Your task to perform on an android device: Show me the alarms in the clock app Image 0: 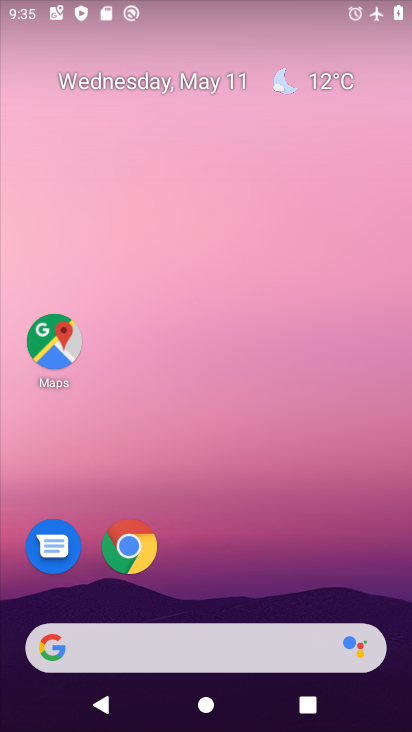
Step 0: drag from (398, 630) to (316, 79)
Your task to perform on an android device: Show me the alarms in the clock app Image 1: 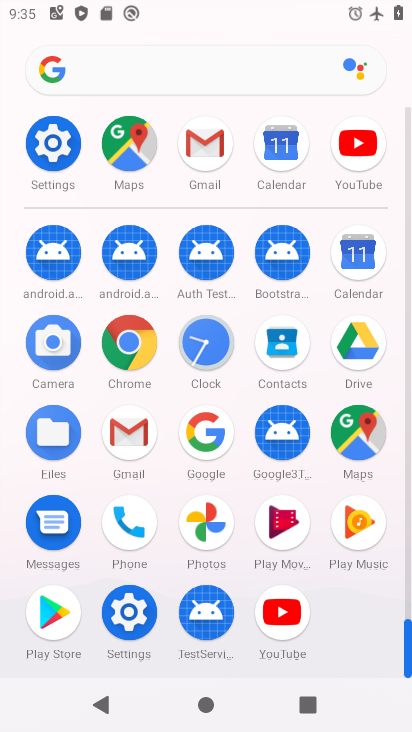
Step 1: click (206, 338)
Your task to perform on an android device: Show me the alarms in the clock app Image 2: 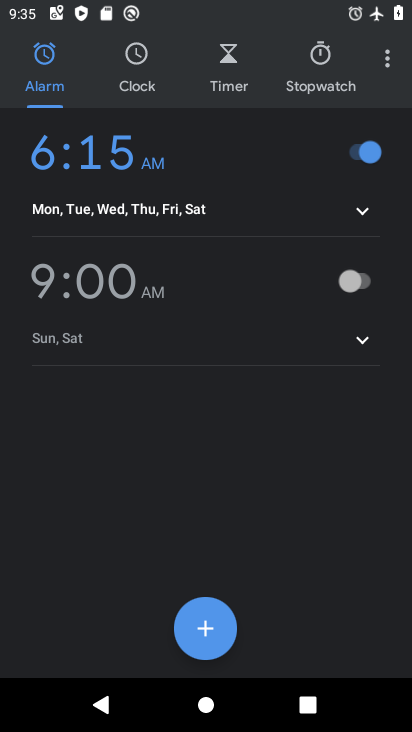
Step 2: task complete